Your task to perform on an android device: add a contact Image 0: 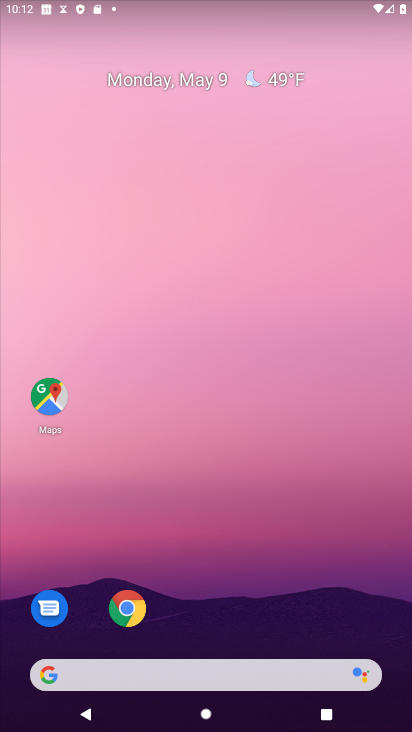
Step 0: drag from (201, 596) to (257, 34)
Your task to perform on an android device: add a contact Image 1: 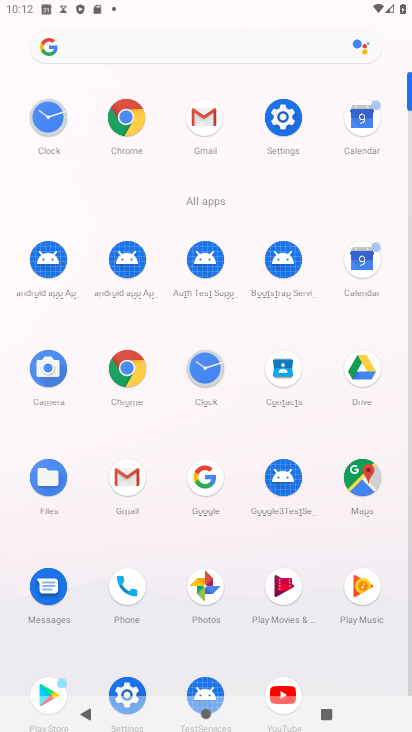
Step 1: click (285, 378)
Your task to perform on an android device: add a contact Image 2: 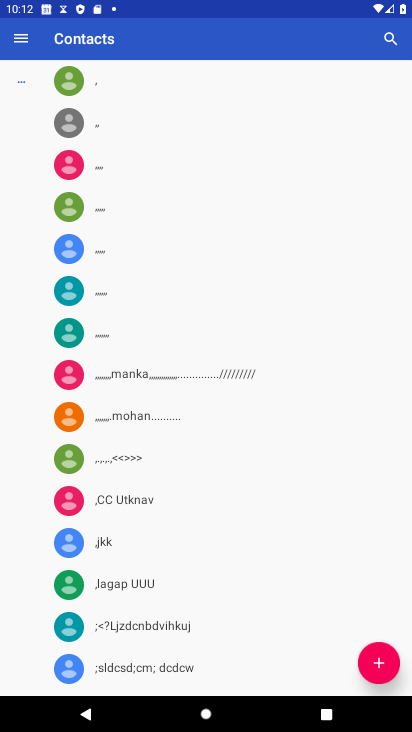
Step 2: click (369, 657)
Your task to perform on an android device: add a contact Image 3: 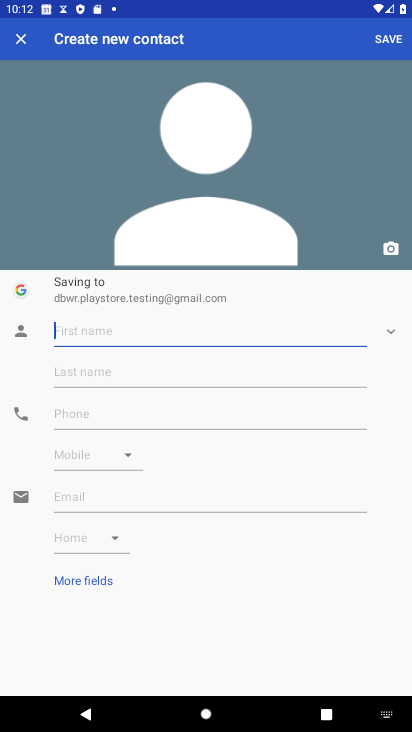
Step 3: type "bjjjbjbj"
Your task to perform on an android device: add a contact Image 4: 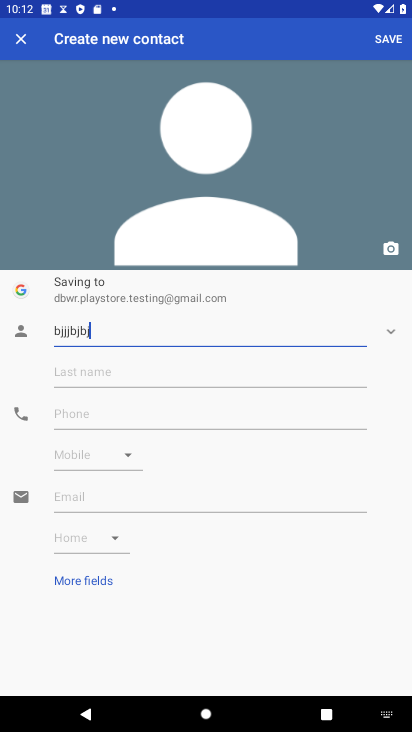
Step 4: click (108, 421)
Your task to perform on an android device: add a contact Image 5: 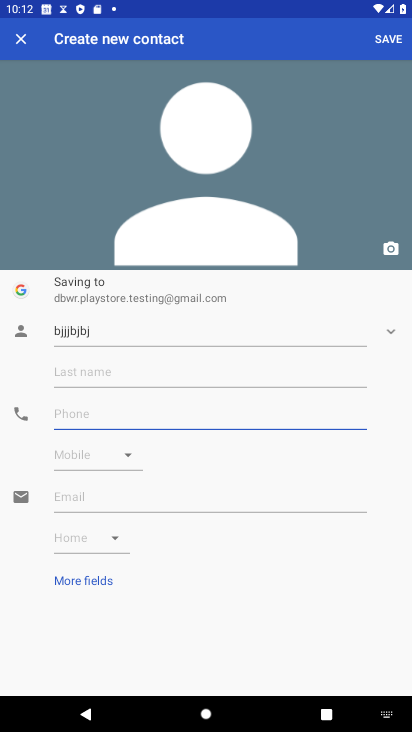
Step 5: type "0987"
Your task to perform on an android device: add a contact Image 6: 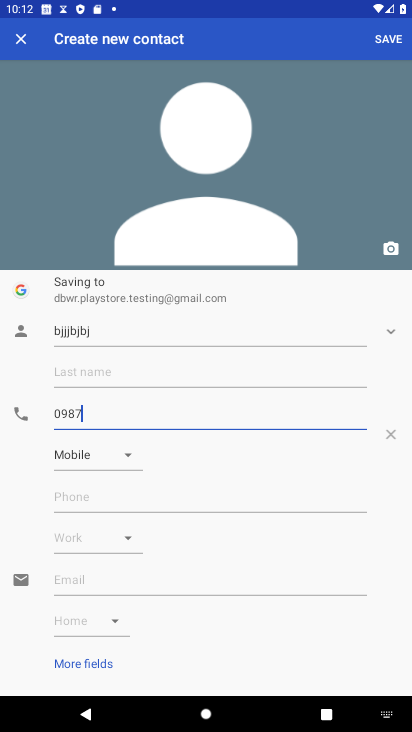
Step 6: click (395, 41)
Your task to perform on an android device: add a contact Image 7: 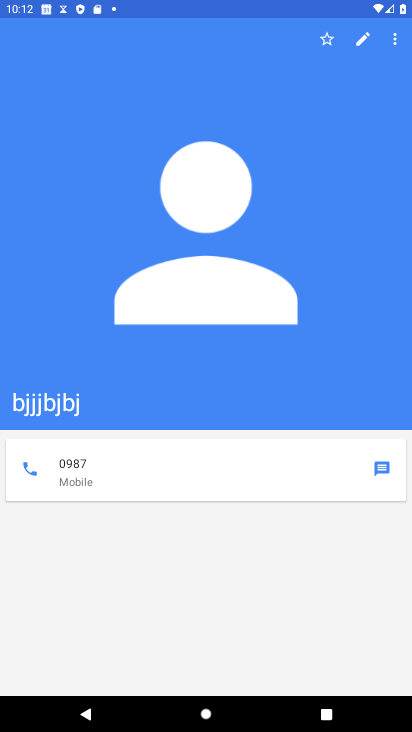
Step 7: task complete